Your task to perform on an android device: open wifi settings Image 0: 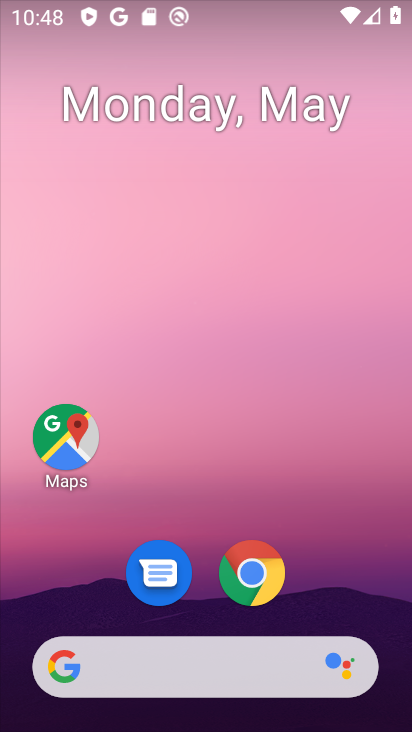
Step 0: drag from (61, 6) to (130, 554)
Your task to perform on an android device: open wifi settings Image 1: 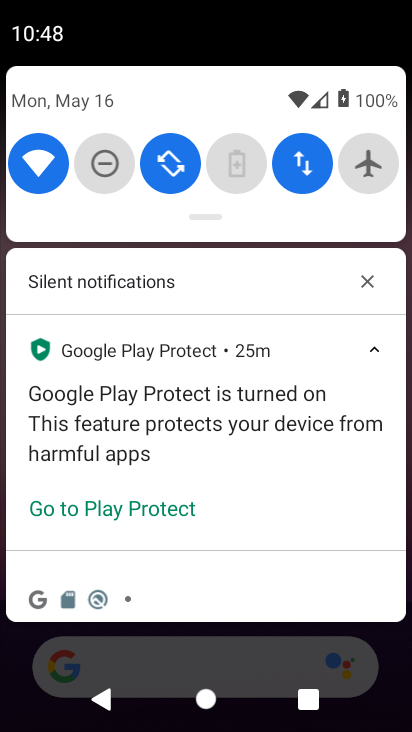
Step 1: click (23, 174)
Your task to perform on an android device: open wifi settings Image 2: 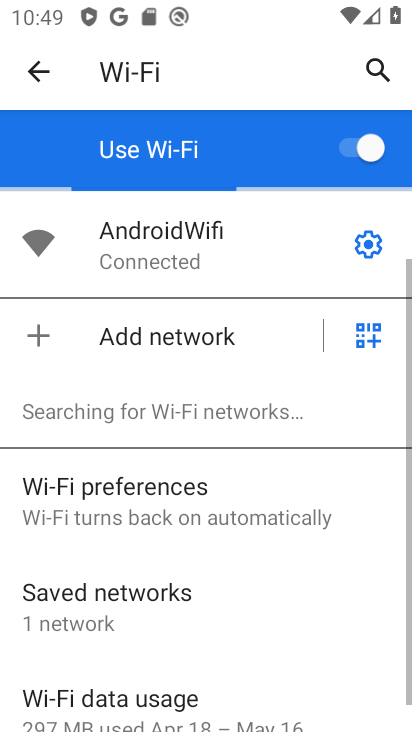
Step 2: task complete